Your task to perform on an android device: Open Youtube and go to the subscriptions tab Image 0: 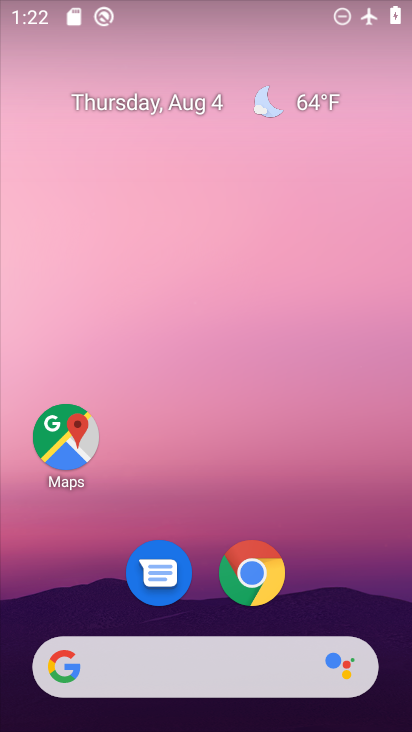
Step 0: drag from (366, 518) to (352, 51)
Your task to perform on an android device: Open Youtube and go to the subscriptions tab Image 1: 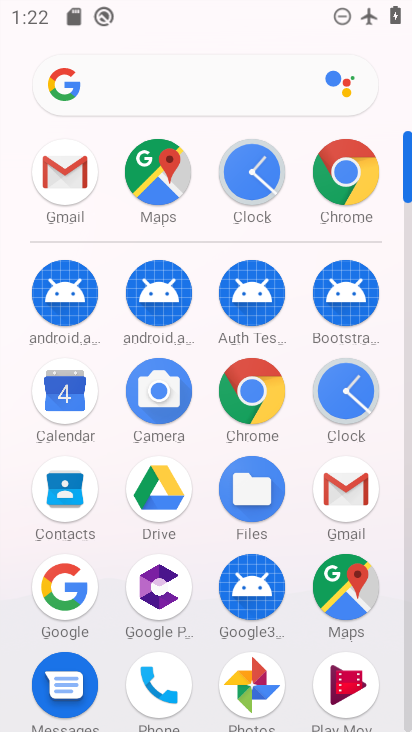
Step 1: drag from (305, 542) to (336, 170)
Your task to perform on an android device: Open Youtube and go to the subscriptions tab Image 2: 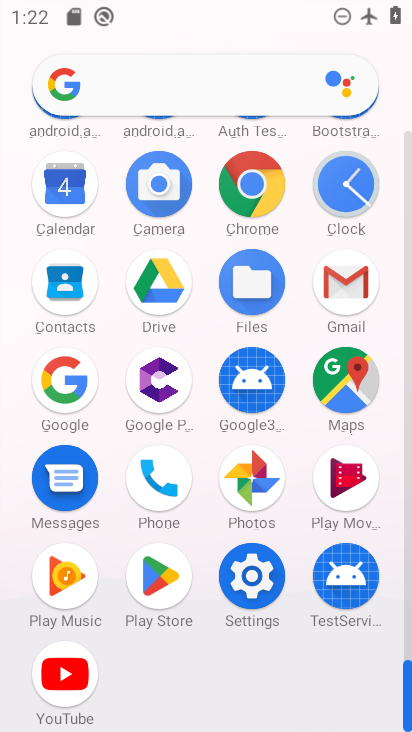
Step 2: drag from (208, 474) to (230, 172)
Your task to perform on an android device: Open Youtube and go to the subscriptions tab Image 3: 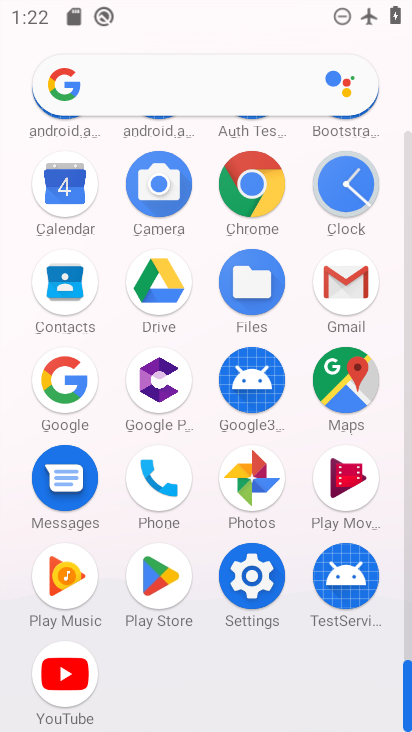
Step 3: click (66, 665)
Your task to perform on an android device: Open Youtube and go to the subscriptions tab Image 4: 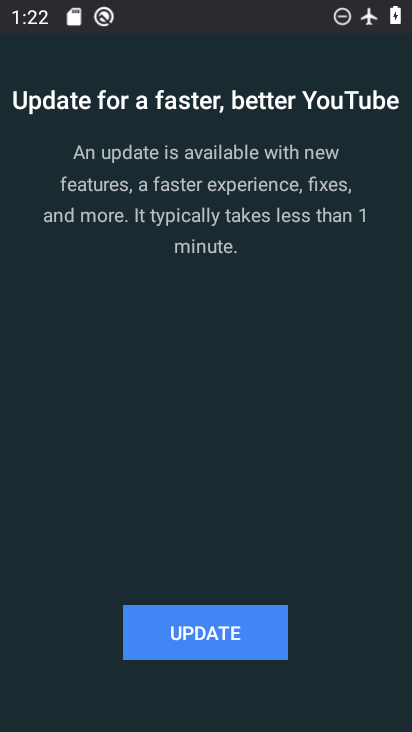
Step 4: click (199, 632)
Your task to perform on an android device: Open Youtube and go to the subscriptions tab Image 5: 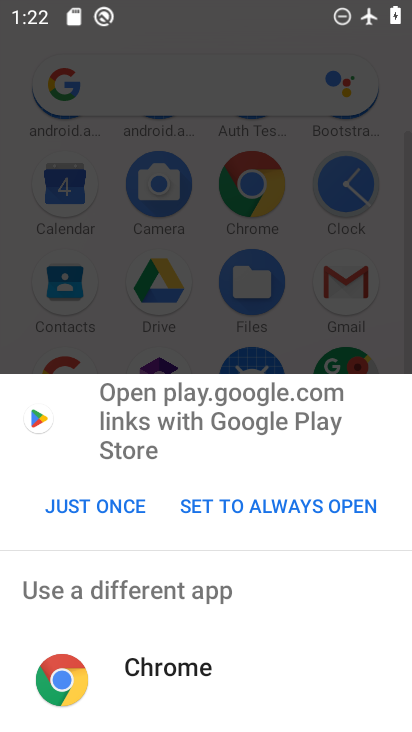
Step 5: click (120, 513)
Your task to perform on an android device: Open Youtube and go to the subscriptions tab Image 6: 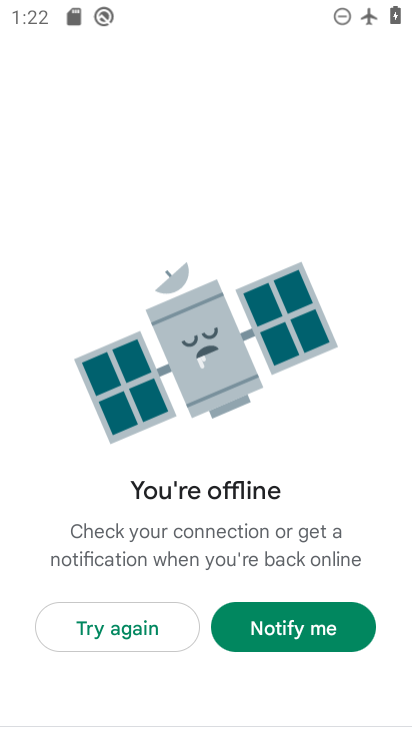
Step 6: task complete